Your task to perform on an android device: turn on sleep mode Image 0: 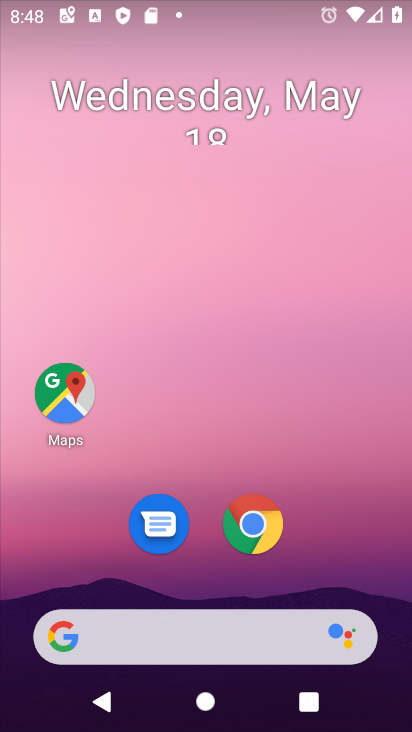
Step 0: drag from (307, 467) to (329, 61)
Your task to perform on an android device: turn on sleep mode Image 1: 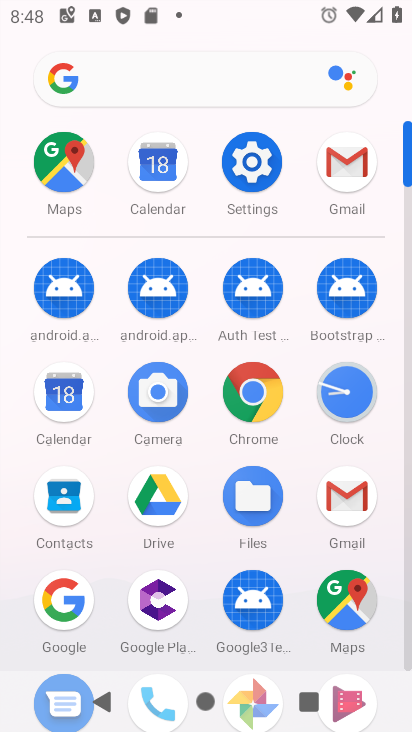
Step 1: click (255, 154)
Your task to perform on an android device: turn on sleep mode Image 2: 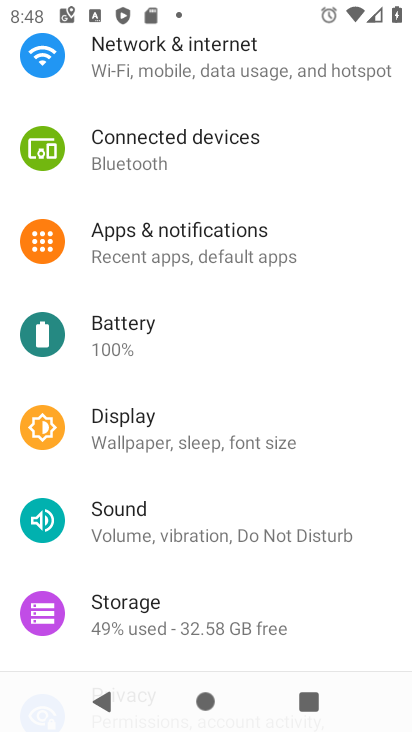
Step 2: click (168, 431)
Your task to perform on an android device: turn on sleep mode Image 3: 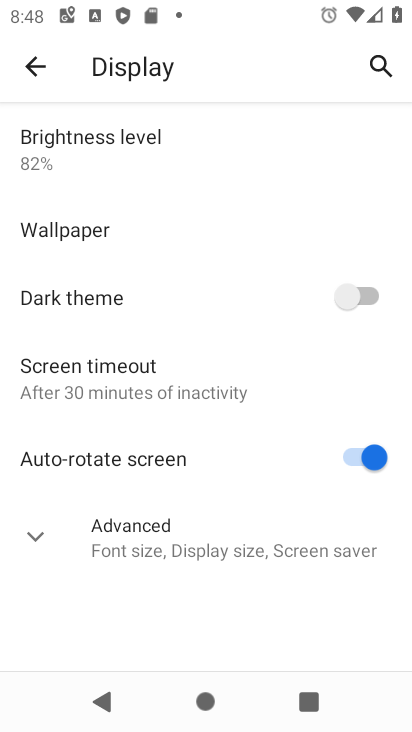
Step 3: click (27, 531)
Your task to perform on an android device: turn on sleep mode Image 4: 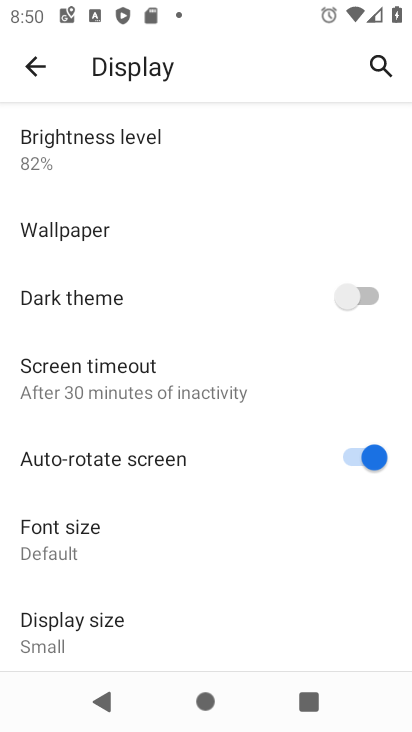
Step 4: task complete